Your task to perform on an android device: choose inbox layout in the gmail app Image 0: 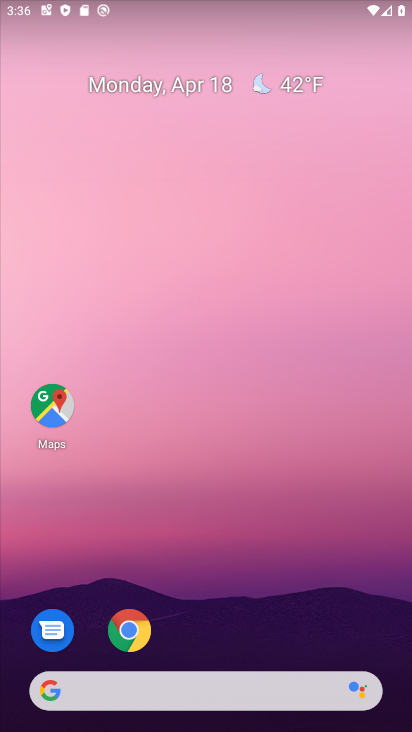
Step 0: drag from (300, 540) to (244, 84)
Your task to perform on an android device: choose inbox layout in the gmail app Image 1: 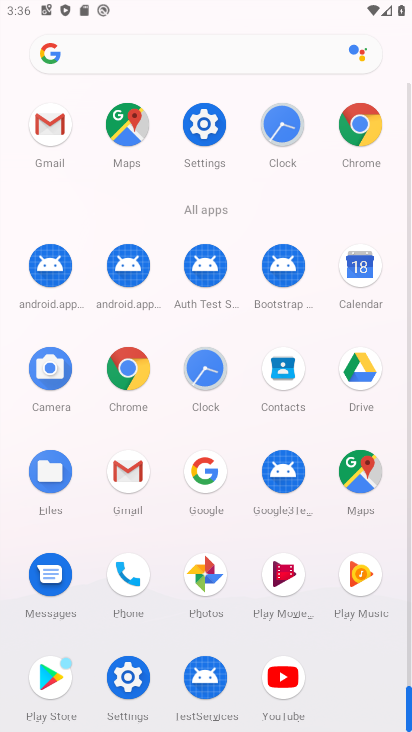
Step 1: click (50, 130)
Your task to perform on an android device: choose inbox layout in the gmail app Image 2: 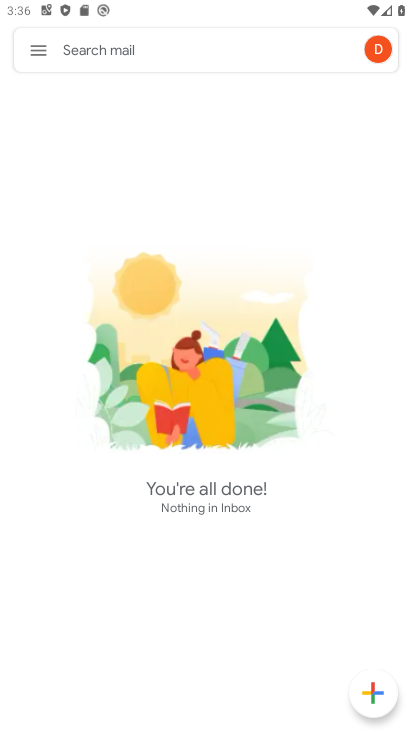
Step 2: click (33, 56)
Your task to perform on an android device: choose inbox layout in the gmail app Image 3: 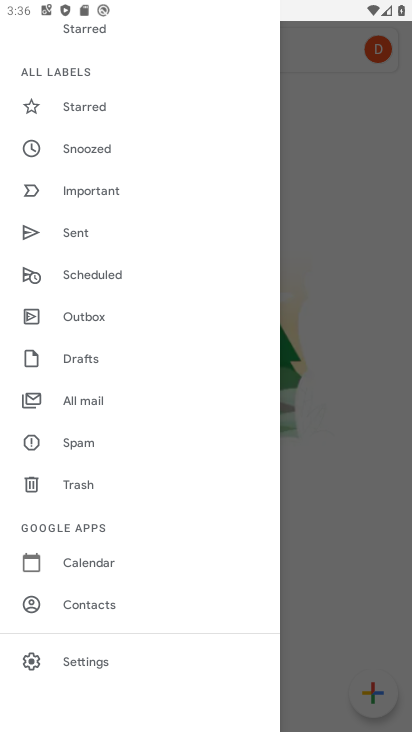
Step 3: click (106, 661)
Your task to perform on an android device: choose inbox layout in the gmail app Image 4: 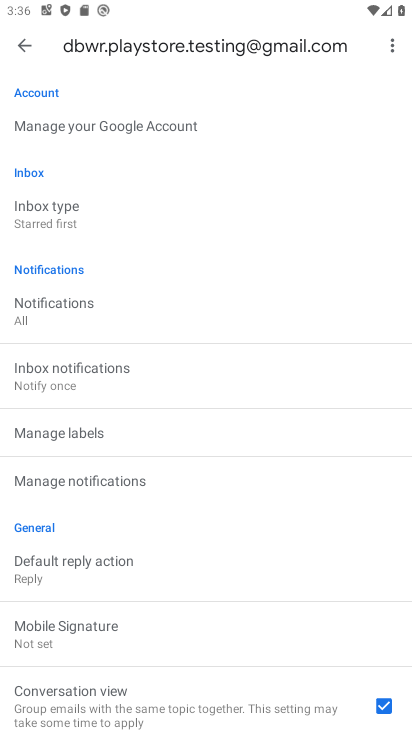
Step 4: click (83, 214)
Your task to perform on an android device: choose inbox layout in the gmail app Image 5: 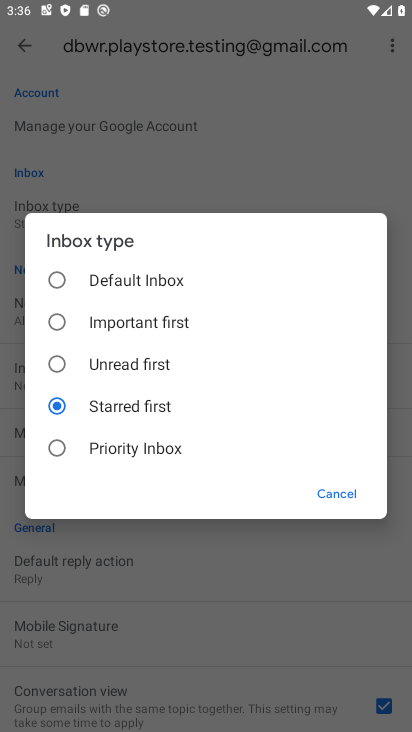
Step 5: click (102, 363)
Your task to perform on an android device: choose inbox layout in the gmail app Image 6: 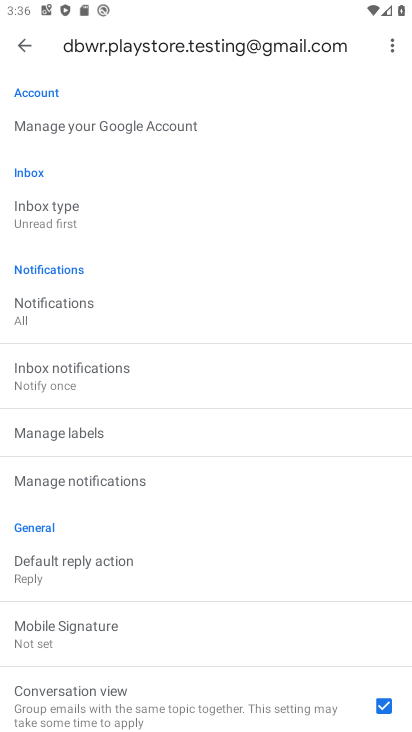
Step 6: task complete